Your task to perform on an android device: What's a good restaurant in Sacramento? Image 0: 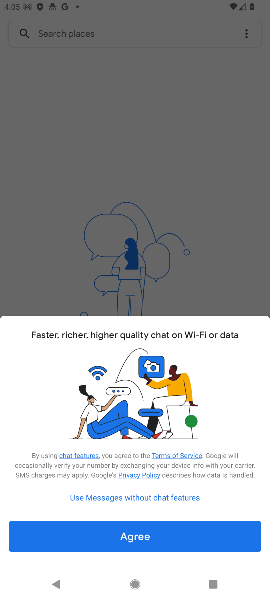
Step 0: press home button
Your task to perform on an android device: What's a good restaurant in Sacramento? Image 1: 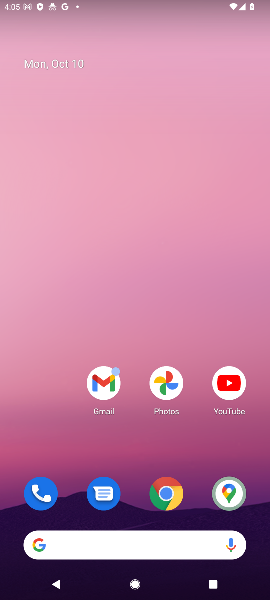
Step 1: click (63, 558)
Your task to perform on an android device: What's a good restaurant in Sacramento? Image 2: 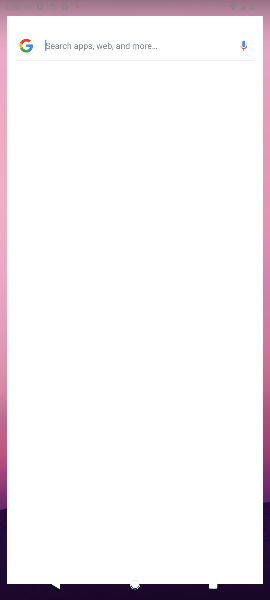
Step 2: click (63, 556)
Your task to perform on an android device: What's a good restaurant in Sacramento? Image 3: 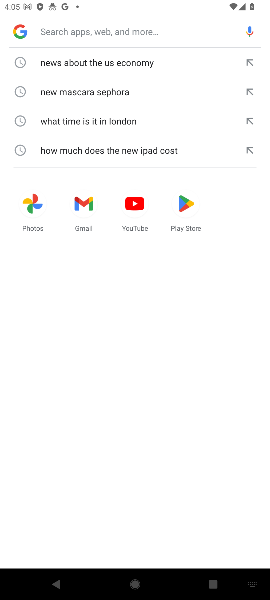
Step 3: type "good restaurant in Sacramento"
Your task to perform on an android device: What's a good restaurant in Sacramento? Image 4: 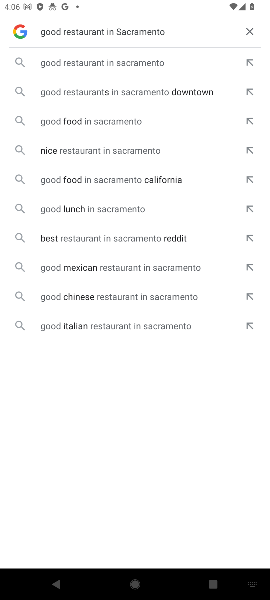
Step 4: click (165, 71)
Your task to perform on an android device: What's a good restaurant in Sacramento? Image 5: 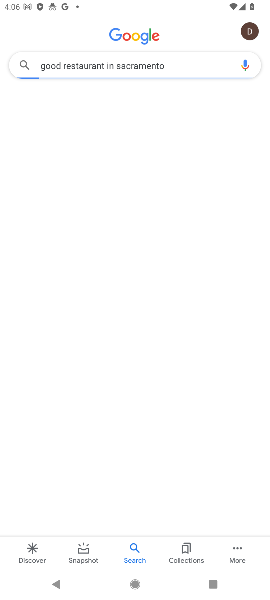
Step 5: task complete